Your task to perform on an android device: turn off location history Image 0: 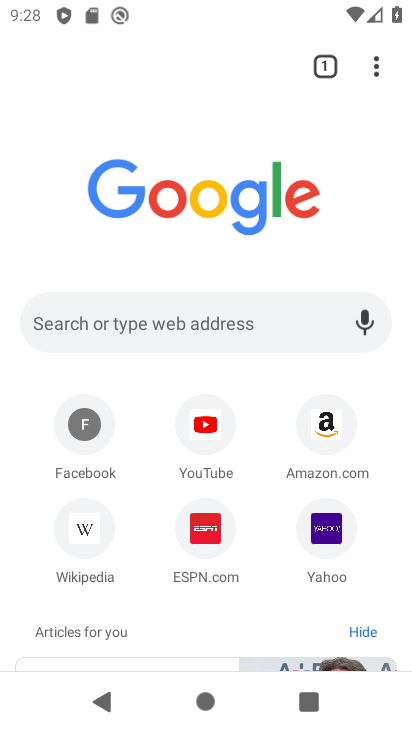
Step 0: press home button
Your task to perform on an android device: turn off location history Image 1: 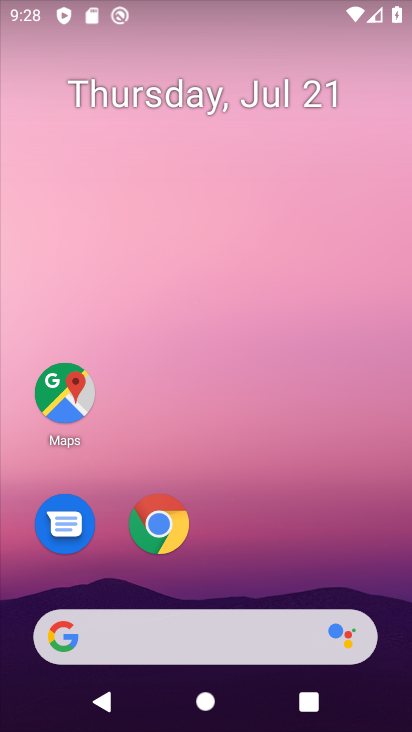
Step 1: click (60, 392)
Your task to perform on an android device: turn off location history Image 2: 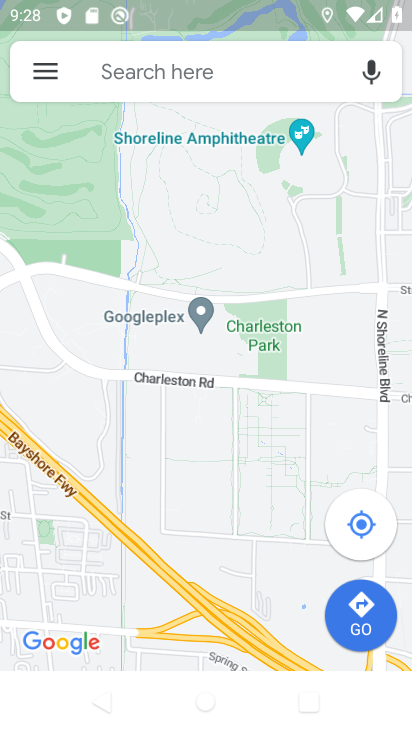
Step 2: click (42, 72)
Your task to perform on an android device: turn off location history Image 3: 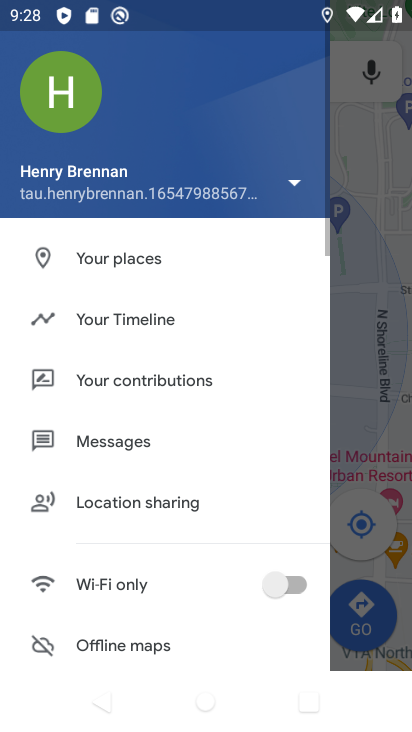
Step 3: click (157, 320)
Your task to perform on an android device: turn off location history Image 4: 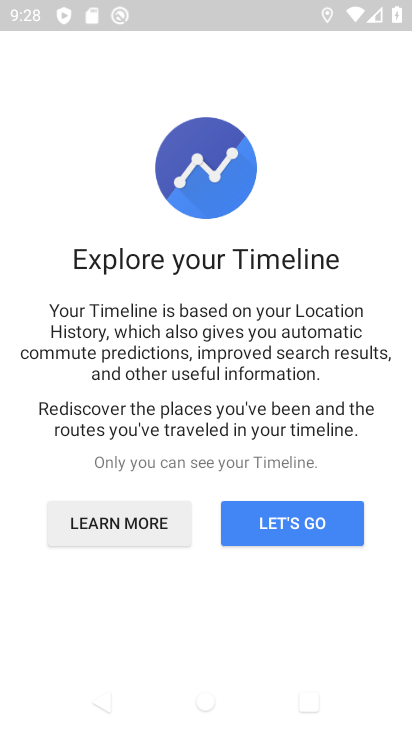
Step 4: click (273, 531)
Your task to perform on an android device: turn off location history Image 5: 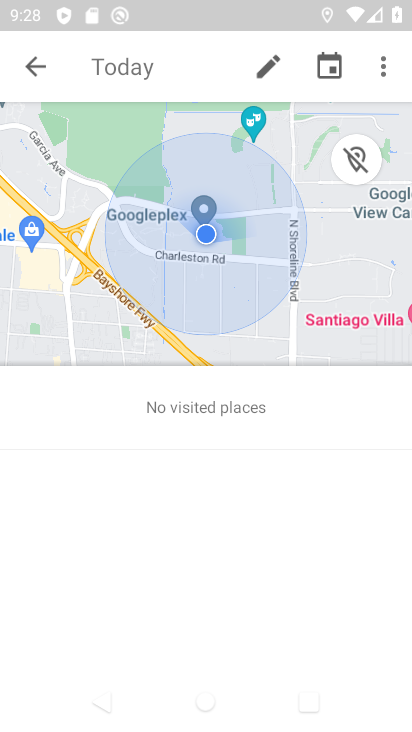
Step 5: click (383, 67)
Your task to perform on an android device: turn off location history Image 6: 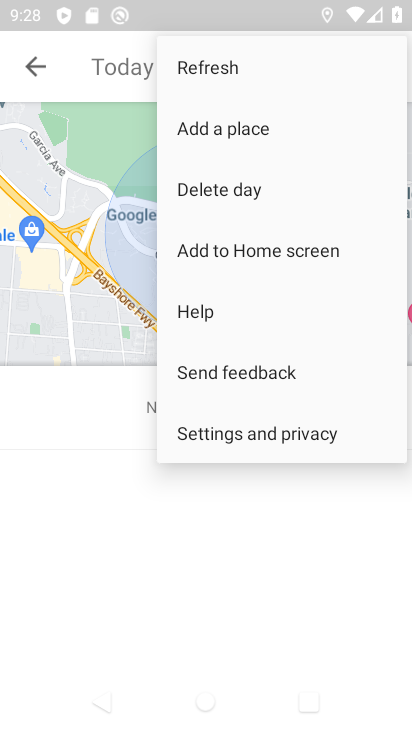
Step 6: click (264, 423)
Your task to perform on an android device: turn off location history Image 7: 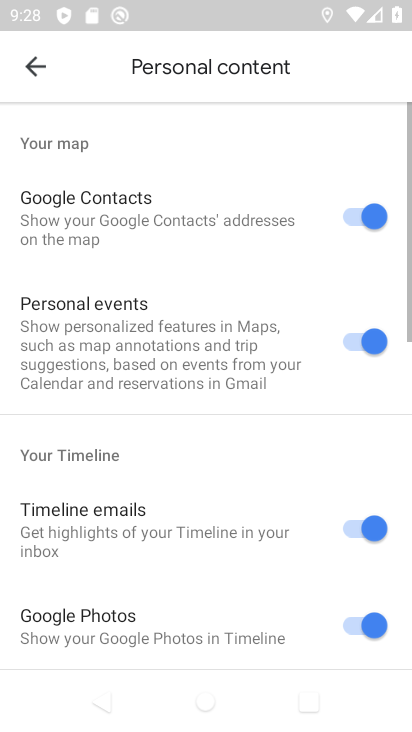
Step 7: drag from (183, 602) to (237, 134)
Your task to perform on an android device: turn off location history Image 8: 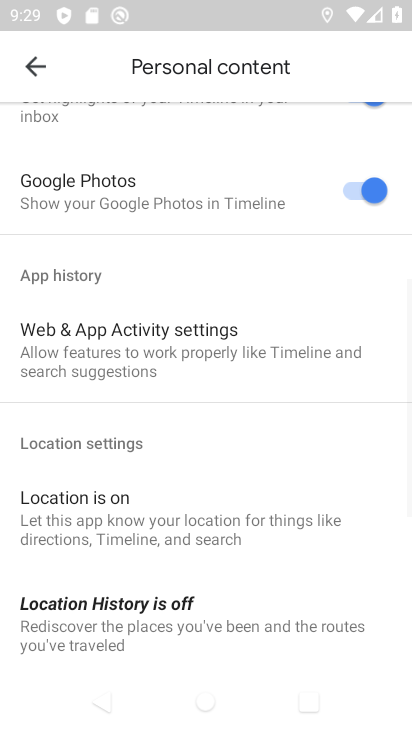
Step 8: drag from (220, 567) to (216, 195)
Your task to perform on an android device: turn off location history Image 9: 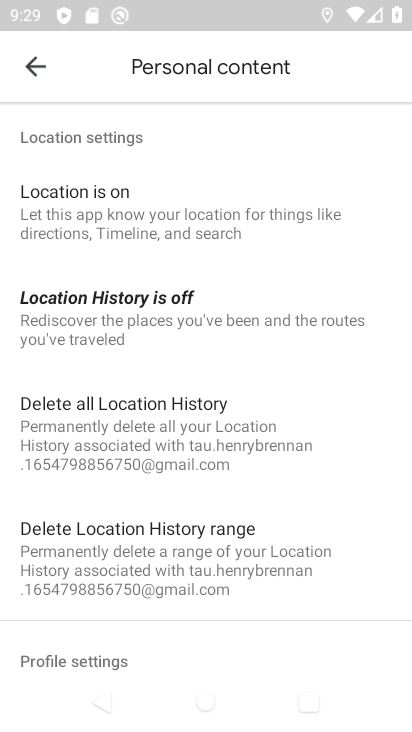
Step 9: click (137, 305)
Your task to perform on an android device: turn off location history Image 10: 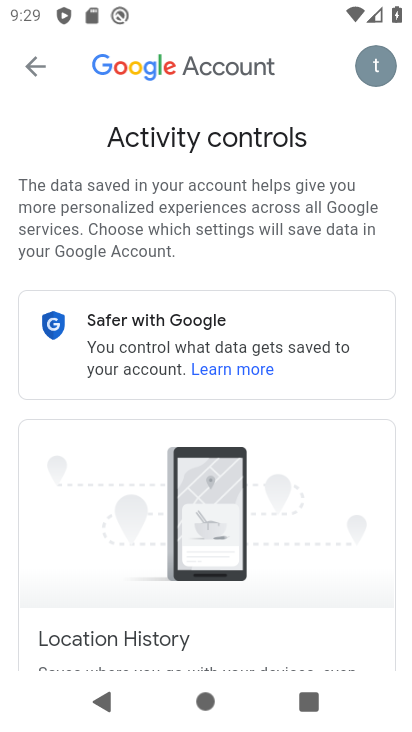
Step 10: task complete